Your task to perform on an android device: change the clock display to analog Image 0: 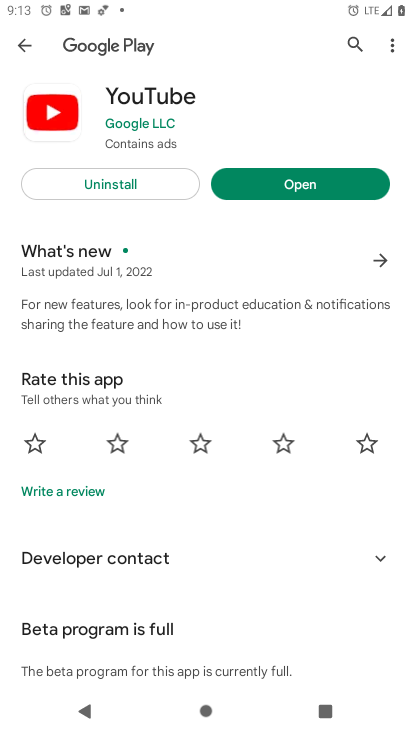
Step 0: press home button
Your task to perform on an android device: change the clock display to analog Image 1: 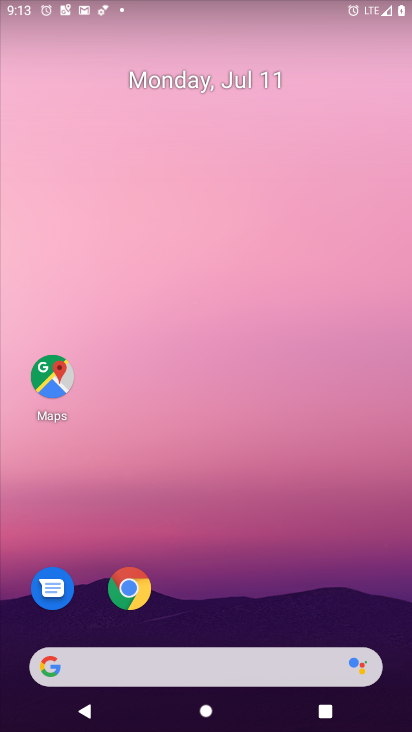
Step 1: drag from (217, 662) to (294, 24)
Your task to perform on an android device: change the clock display to analog Image 2: 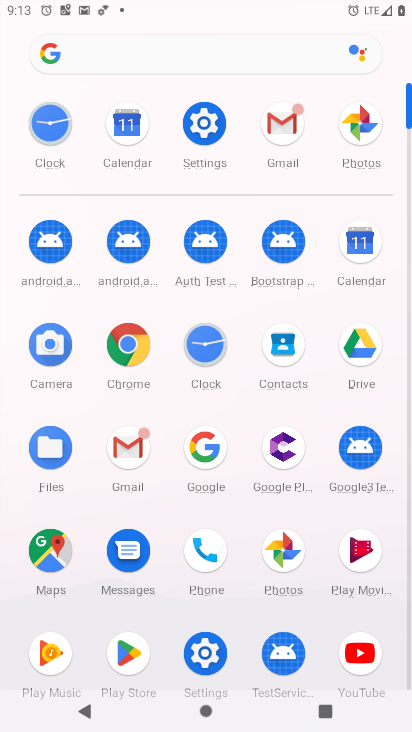
Step 2: click (204, 335)
Your task to perform on an android device: change the clock display to analog Image 3: 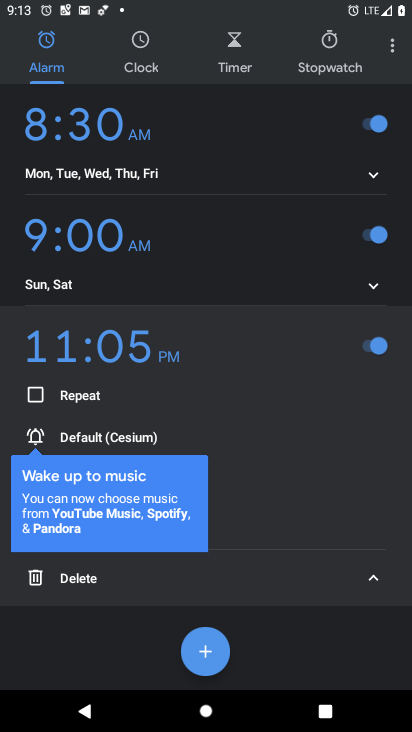
Step 3: click (394, 41)
Your task to perform on an android device: change the clock display to analog Image 4: 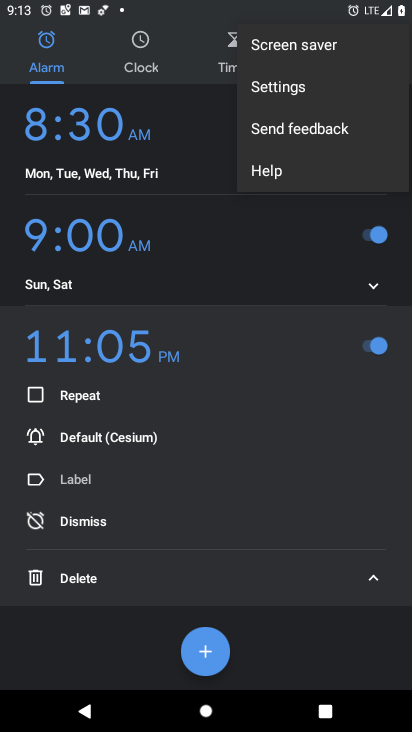
Step 4: click (302, 81)
Your task to perform on an android device: change the clock display to analog Image 5: 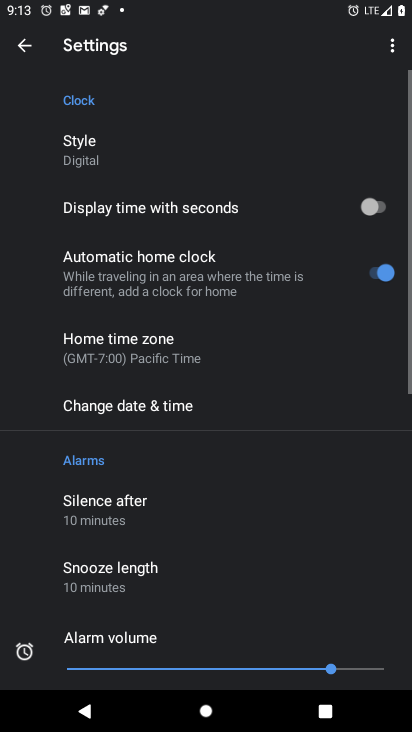
Step 5: click (86, 143)
Your task to perform on an android device: change the clock display to analog Image 6: 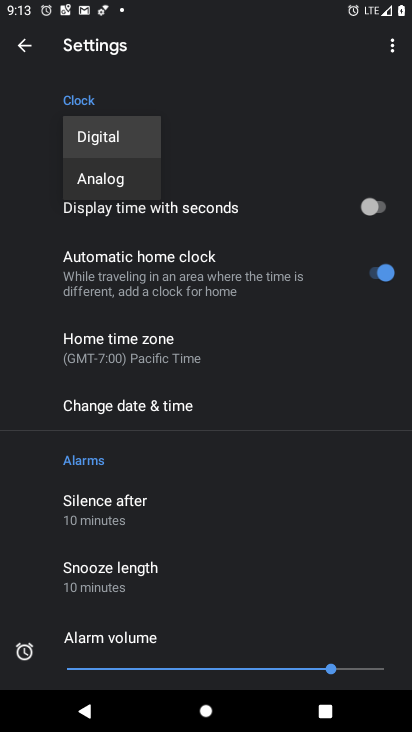
Step 6: click (110, 182)
Your task to perform on an android device: change the clock display to analog Image 7: 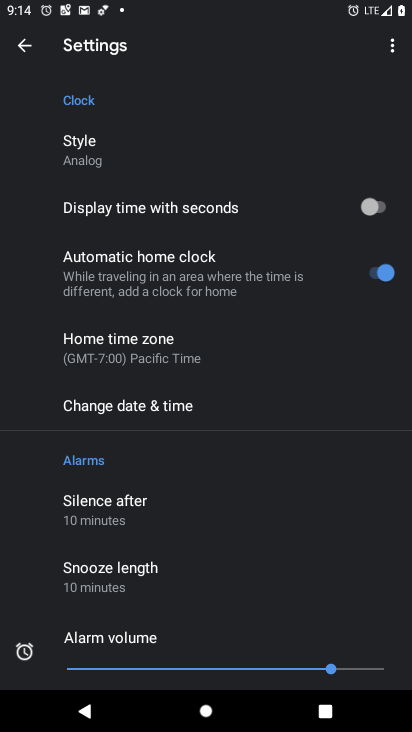
Step 7: task complete